Your task to perform on an android device: find which apps use the phone's location Image 0: 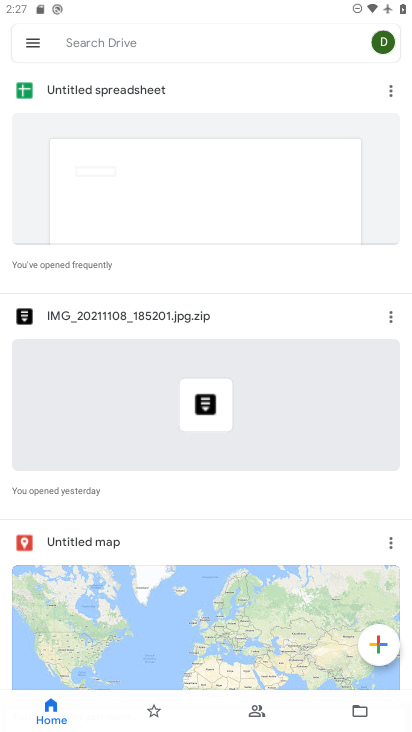
Step 0: press home button
Your task to perform on an android device: find which apps use the phone's location Image 1: 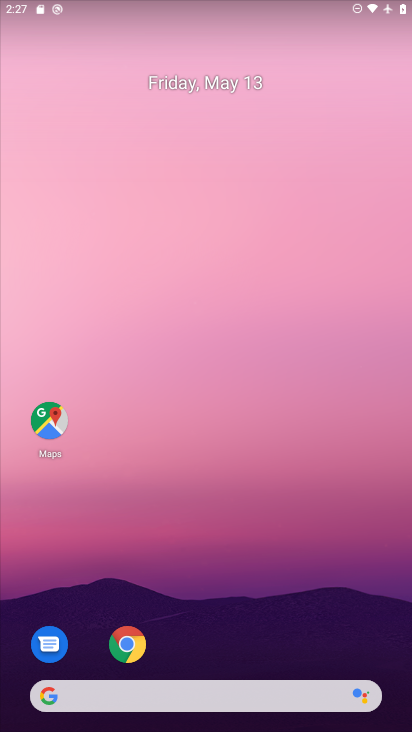
Step 1: drag from (321, 664) to (231, 14)
Your task to perform on an android device: find which apps use the phone's location Image 2: 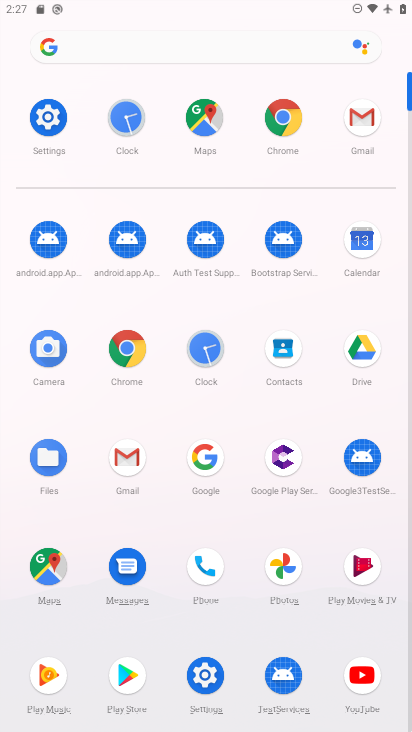
Step 2: click (205, 669)
Your task to perform on an android device: find which apps use the phone's location Image 3: 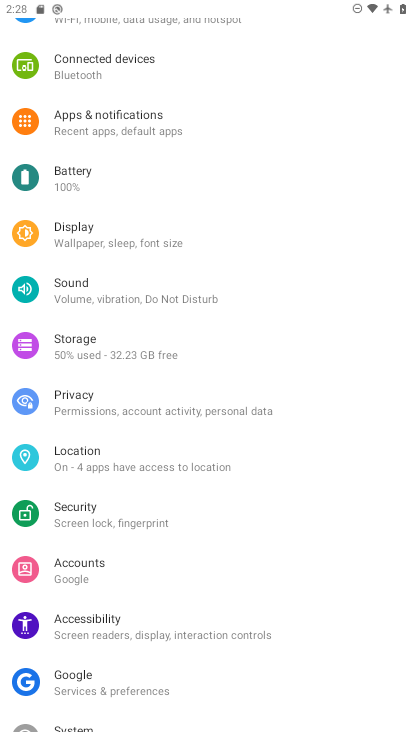
Step 3: click (185, 476)
Your task to perform on an android device: find which apps use the phone's location Image 4: 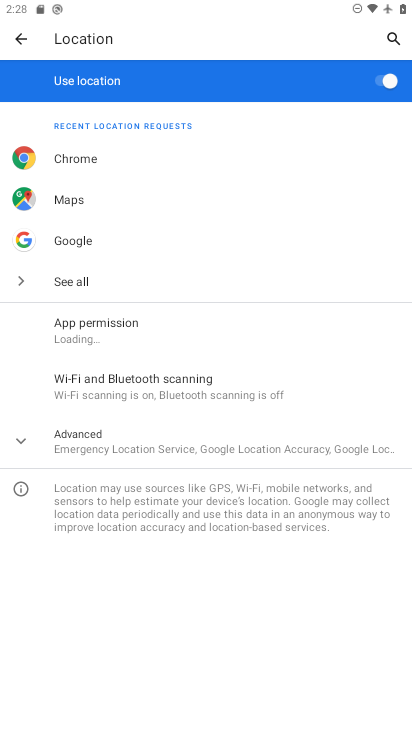
Step 4: click (51, 447)
Your task to perform on an android device: find which apps use the phone's location Image 5: 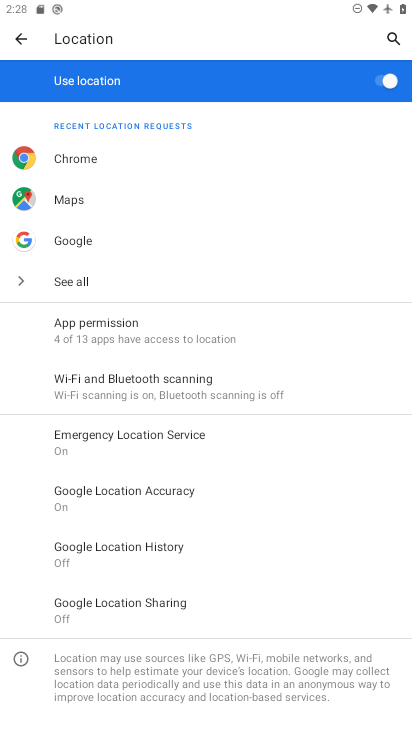
Step 5: click (176, 326)
Your task to perform on an android device: find which apps use the phone's location Image 6: 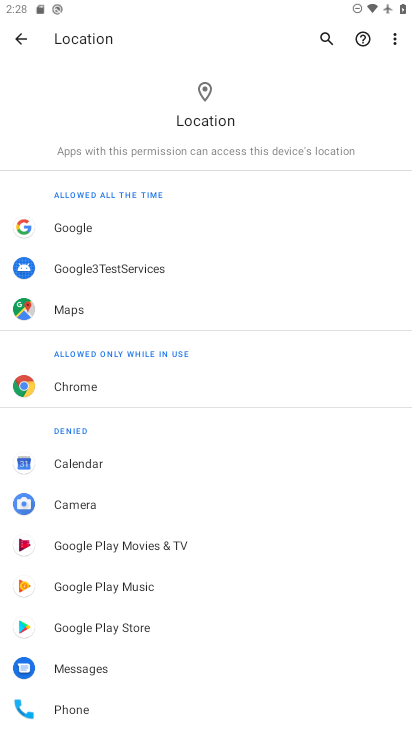
Step 6: click (81, 713)
Your task to perform on an android device: find which apps use the phone's location Image 7: 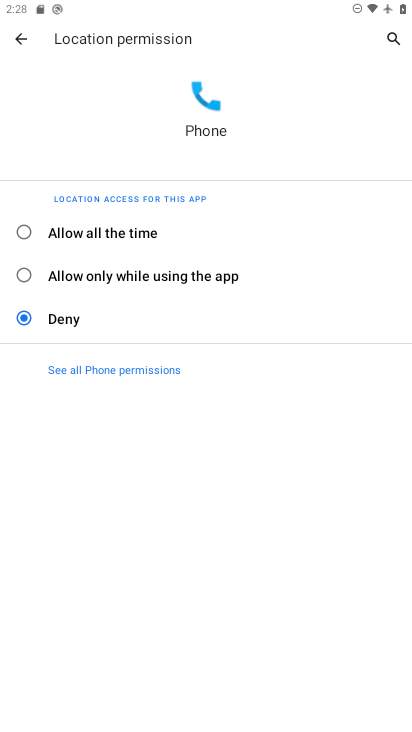
Step 7: click (51, 226)
Your task to perform on an android device: find which apps use the phone's location Image 8: 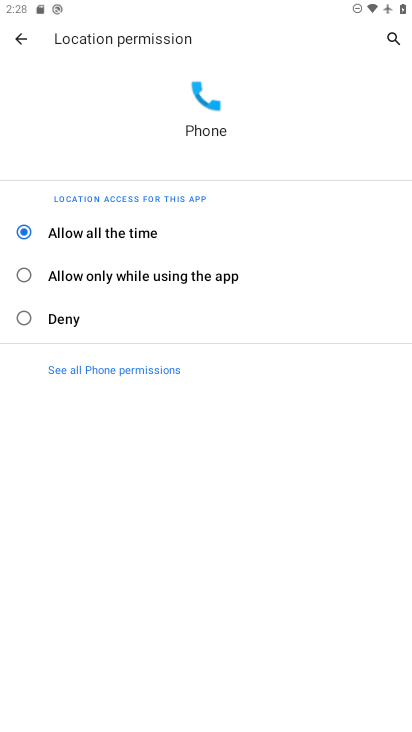
Step 8: task complete